Your task to perform on an android device: check storage Image 0: 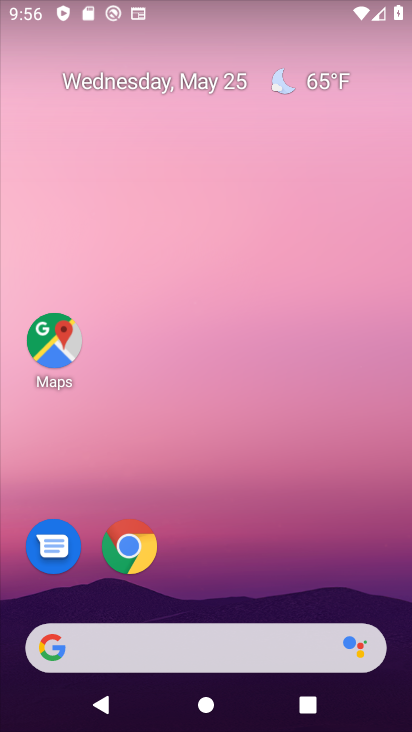
Step 0: drag from (261, 563) to (215, 27)
Your task to perform on an android device: check storage Image 1: 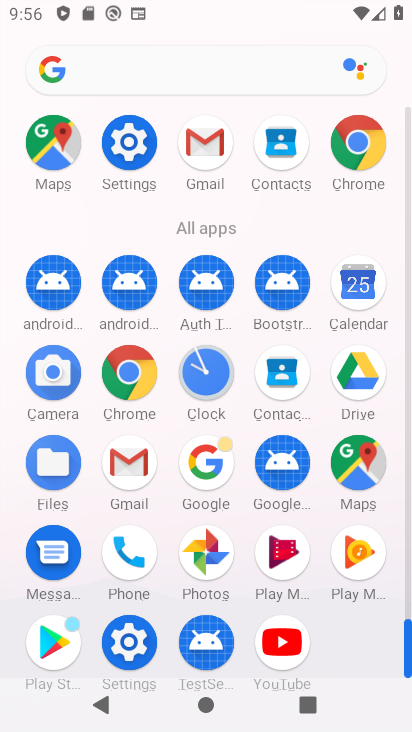
Step 1: drag from (4, 558) to (10, 190)
Your task to perform on an android device: check storage Image 2: 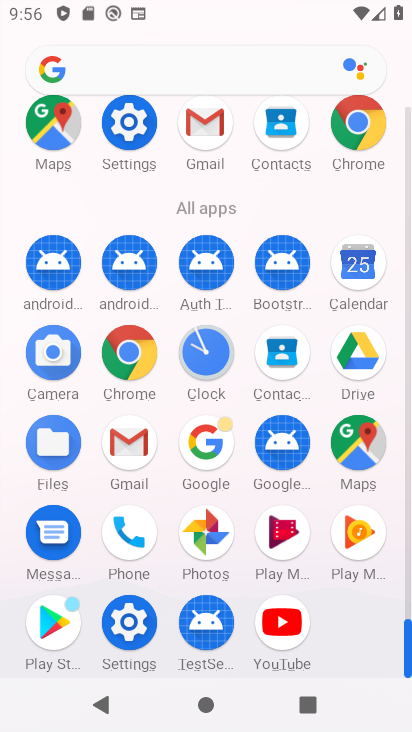
Step 2: click (125, 621)
Your task to perform on an android device: check storage Image 3: 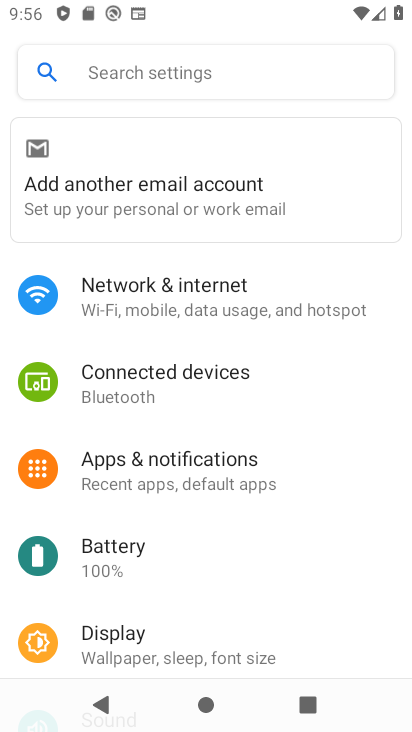
Step 3: drag from (317, 576) to (340, 157)
Your task to perform on an android device: check storage Image 4: 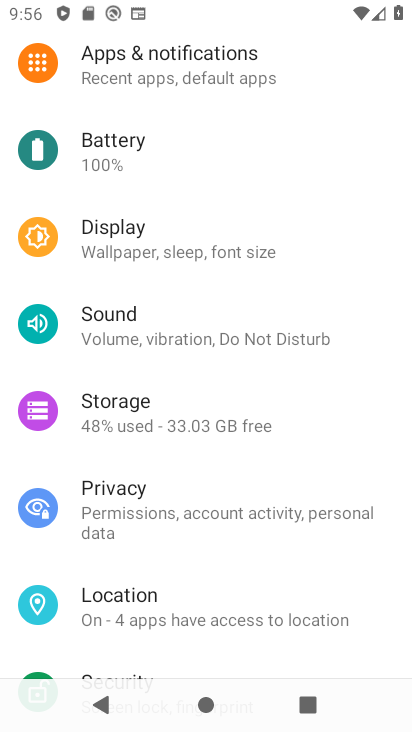
Step 4: drag from (225, 587) to (293, 156)
Your task to perform on an android device: check storage Image 5: 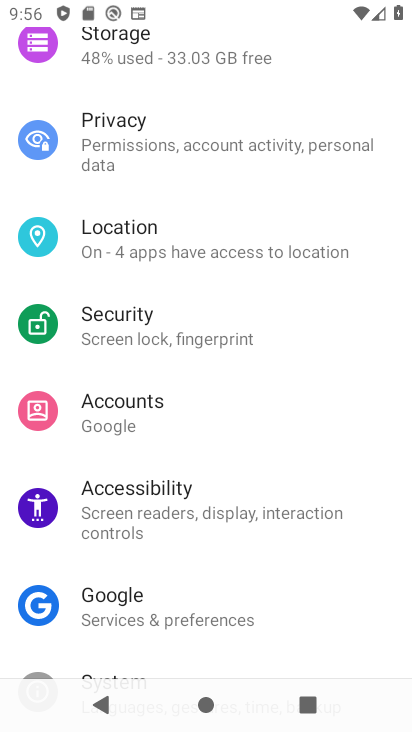
Step 5: drag from (255, 579) to (310, 134)
Your task to perform on an android device: check storage Image 6: 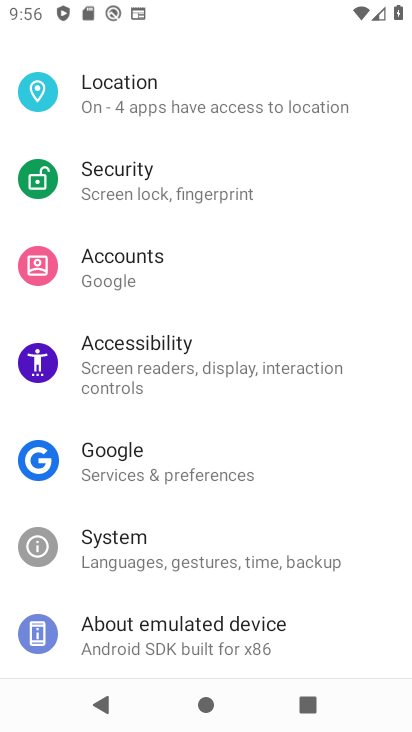
Step 6: drag from (276, 184) to (258, 646)
Your task to perform on an android device: check storage Image 7: 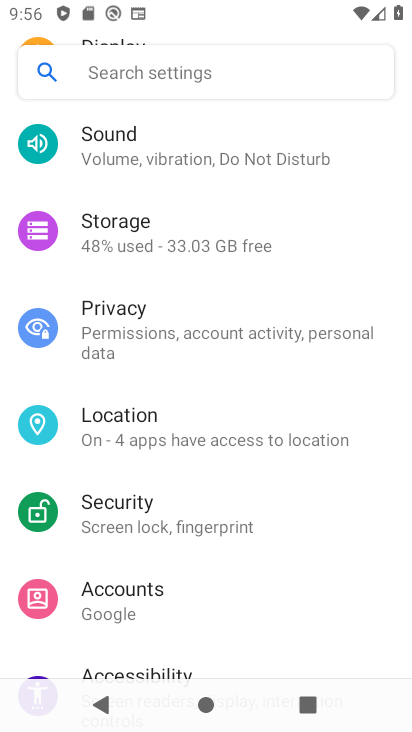
Step 7: click (197, 235)
Your task to perform on an android device: check storage Image 8: 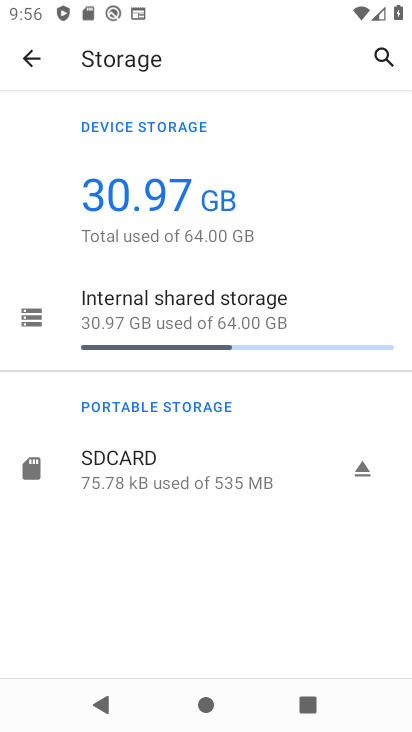
Step 8: task complete